Your task to perform on an android device: change text size in settings app Image 0: 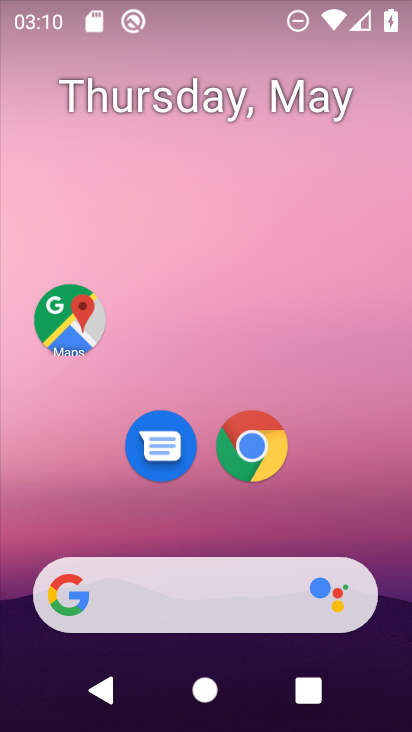
Step 0: drag from (349, 368) to (352, 33)
Your task to perform on an android device: change text size in settings app Image 1: 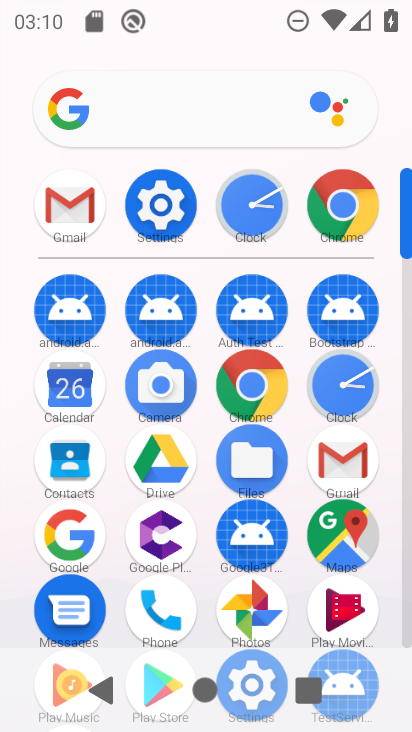
Step 1: click (159, 215)
Your task to perform on an android device: change text size in settings app Image 2: 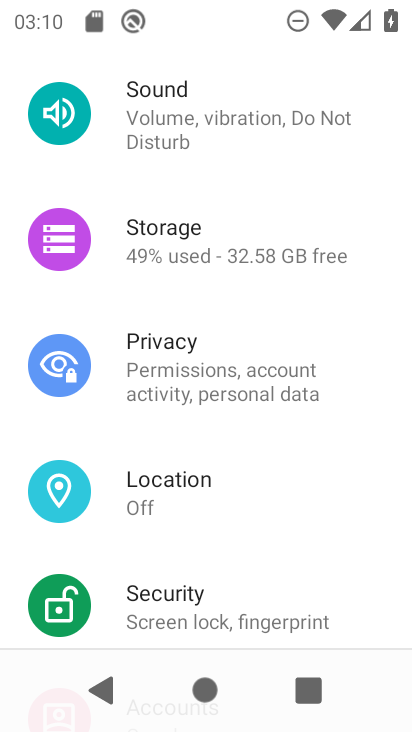
Step 2: drag from (227, 210) to (248, 465)
Your task to perform on an android device: change text size in settings app Image 3: 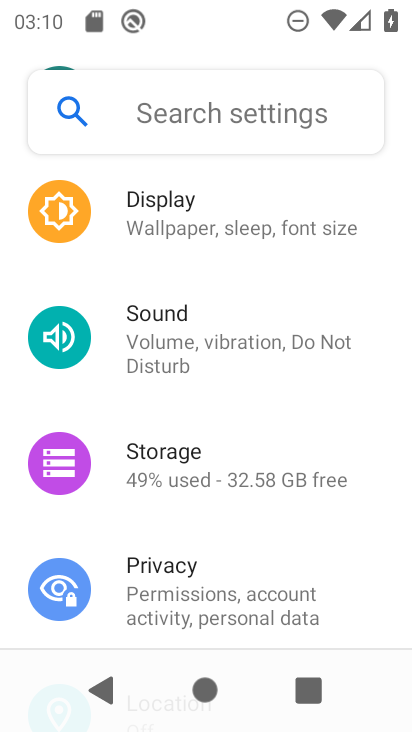
Step 3: click (180, 230)
Your task to perform on an android device: change text size in settings app Image 4: 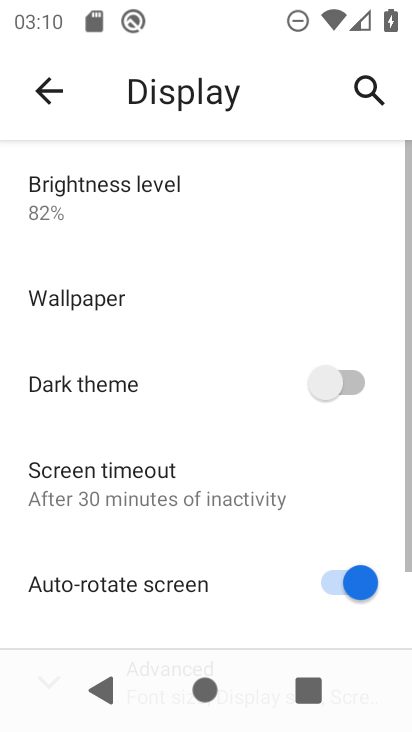
Step 4: drag from (173, 501) to (166, 126)
Your task to perform on an android device: change text size in settings app Image 5: 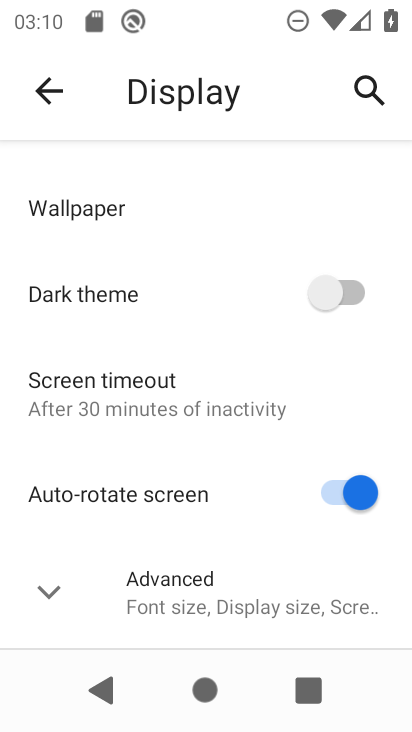
Step 5: click (52, 604)
Your task to perform on an android device: change text size in settings app Image 6: 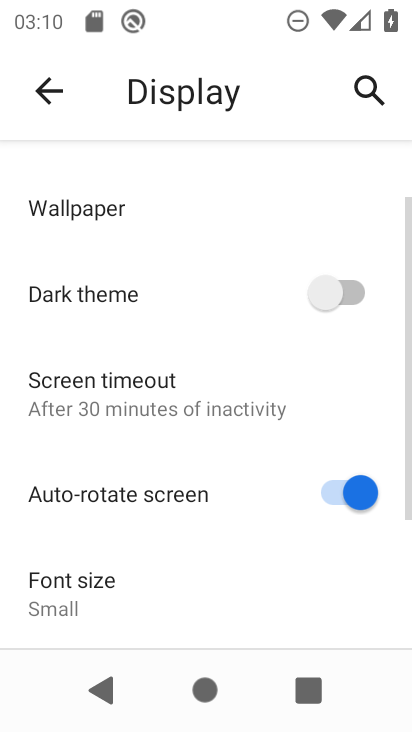
Step 6: click (60, 589)
Your task to perform on an android device: change text size in settings app Image 7: 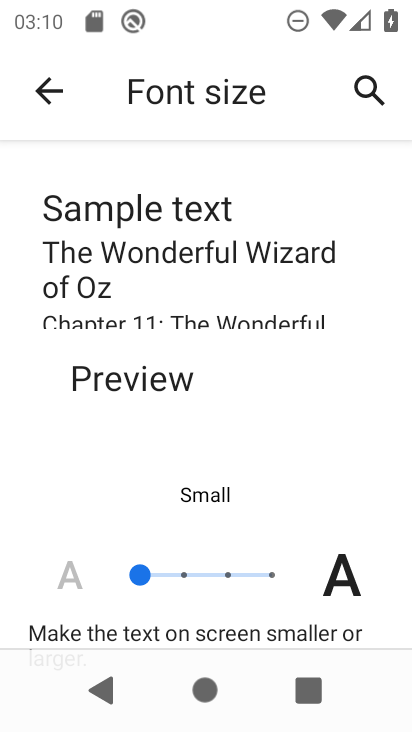
Step 7: click (175, 576)
Your task to perform on an android device: change text size in settings app Image 8: 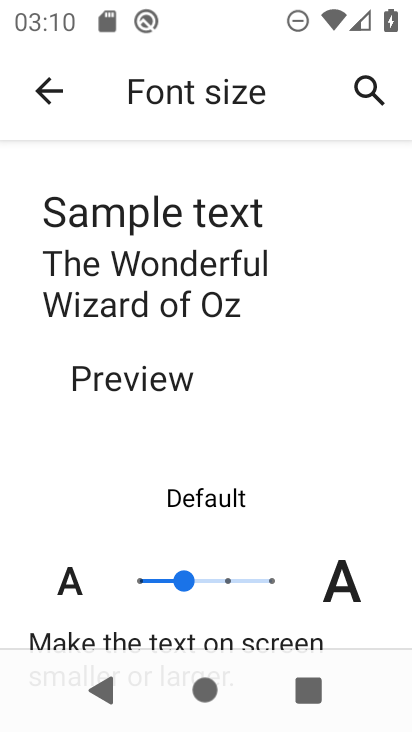
Step 8: task complete